Your task to perform on an android device: Open the map Image 0: 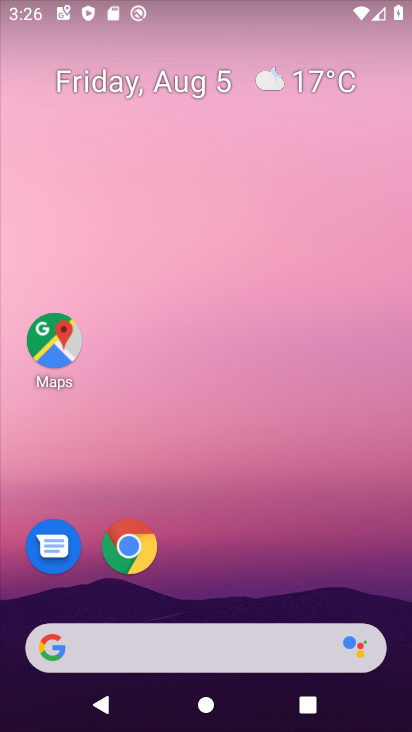
Step 0: press home button
Your task to perform on an android device: Open the map Image 1: 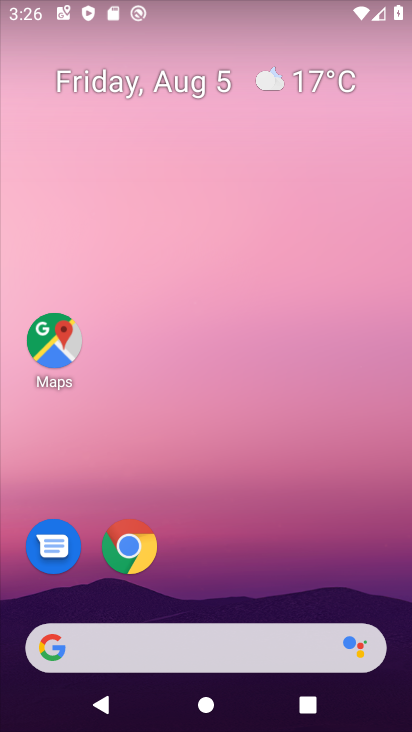
Step 1: drag from (296, 565) to (291, 172)
Your task to perform on an android device: Open the map Image 2: 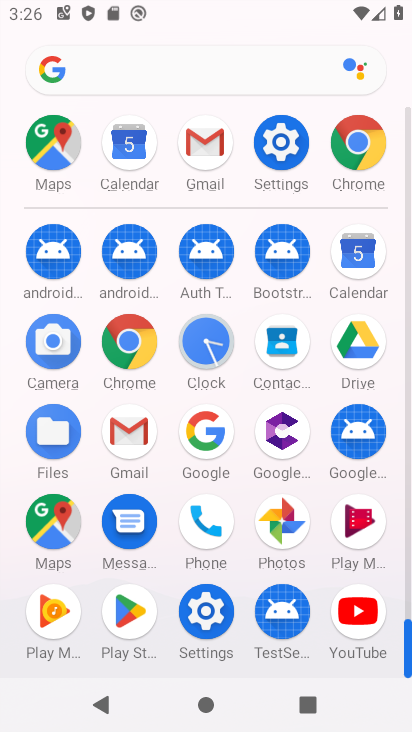
Step 2: click (53, 519)
Your task to perform on an android device: Open the map Image 3: 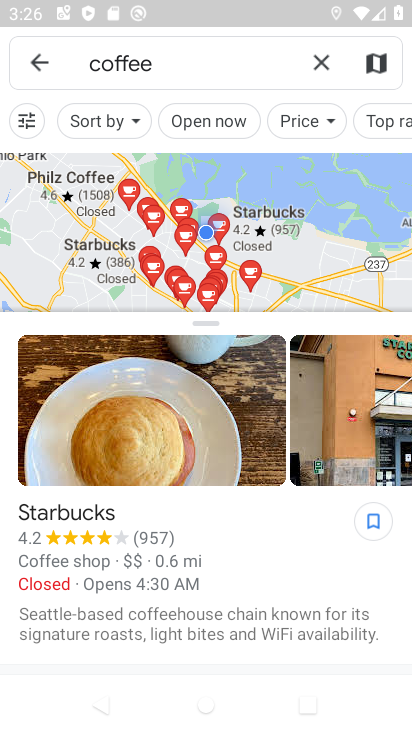
Step 3: task complete